Your task to perform on an android device: What's on my calendar tomorrow? Image 0: 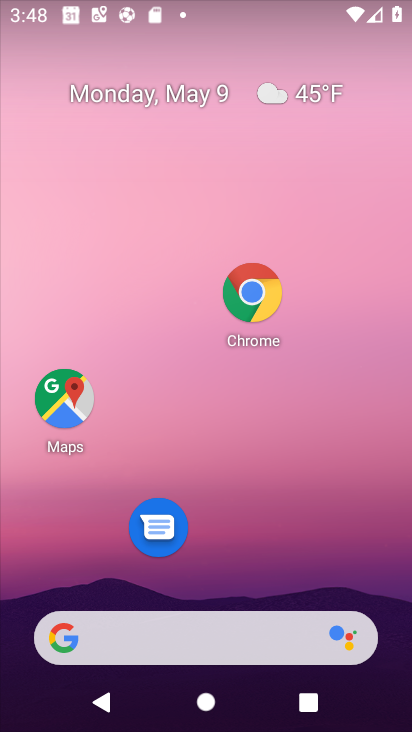
Step 0: drag from (283, 409) to (293, 194)
Your task to perform on an android device: What's on my calendar tomorrow? Image 1: 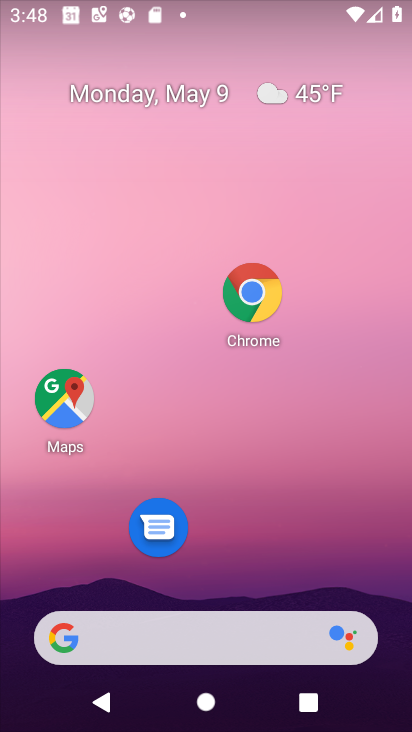
Step 1: drag from (257, 545) to (297, 211)
Your task to perform on an android device: What's on my calendar tomorrow? Image 2: 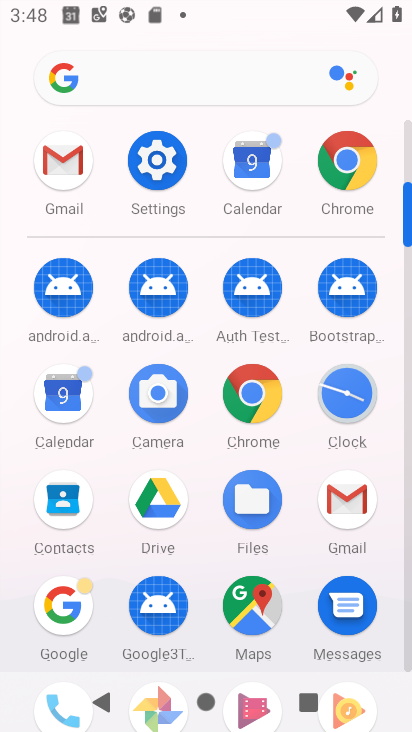
Step 2: click (76, 409)
Your task to perform on an android device: What's on my calendar tomorrow? Image 3: 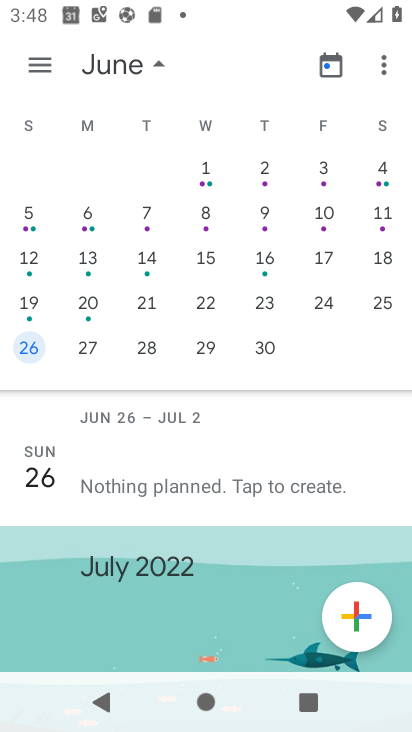
Step 3: drag from (88, 289) to (396, 251)
Your task to perform on an android device: What's on my calendar tomorrow? Image 4: 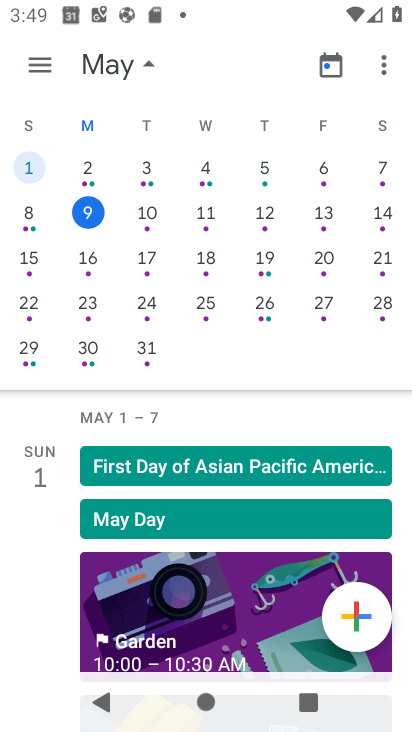
Step 4: click (148, 218)
Your task to perform on an android device: What's on my calendar tomorrow? Image 5: 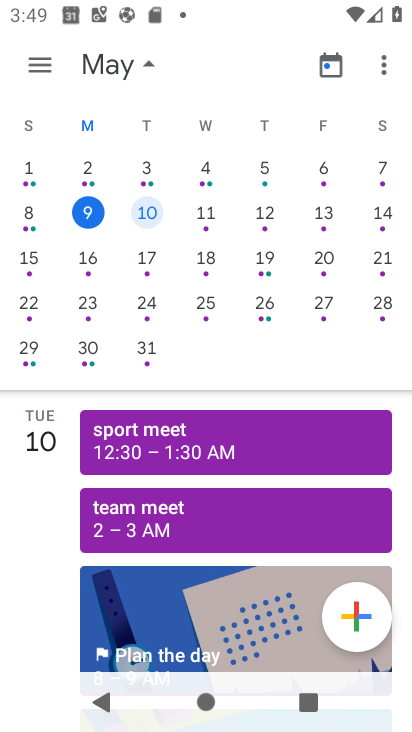
Step 5: task complete